Your task to perform on an android device: change your default location settings in chrome Image 0: 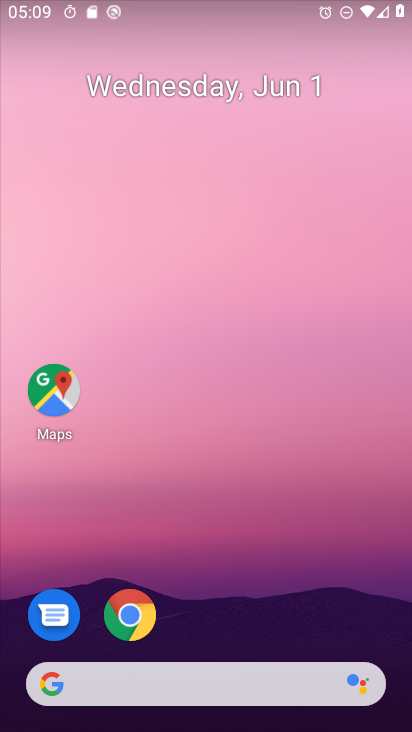
Step 0: drag from (302, 590) to (321, 78)
Your task to perform on an android device: change your default location settings in chrome Image 1: 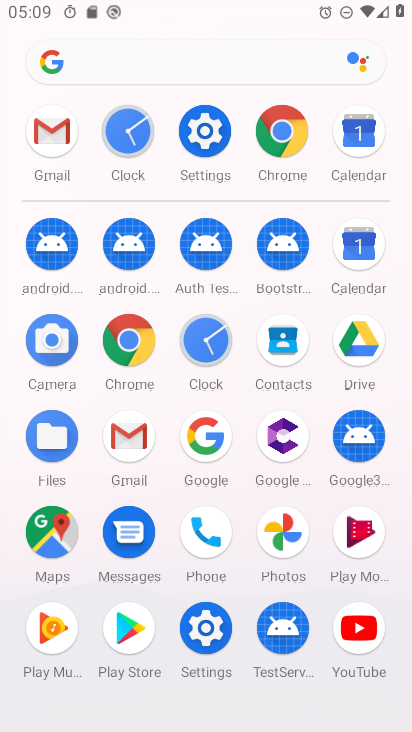
Step 1: click (128, 346)
Your task to perform on an android device: change your default location settings in chrome Image 2: 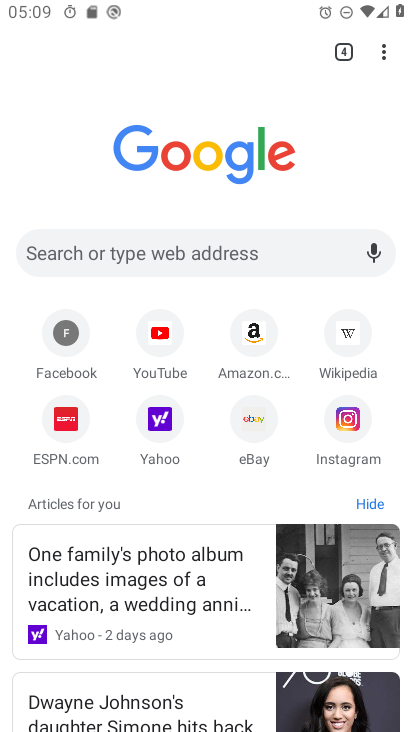
Step 2: drag from (382, 49) to (239, 444)
Your task to perform on an android device: change your default location settings in chrome Image 3: 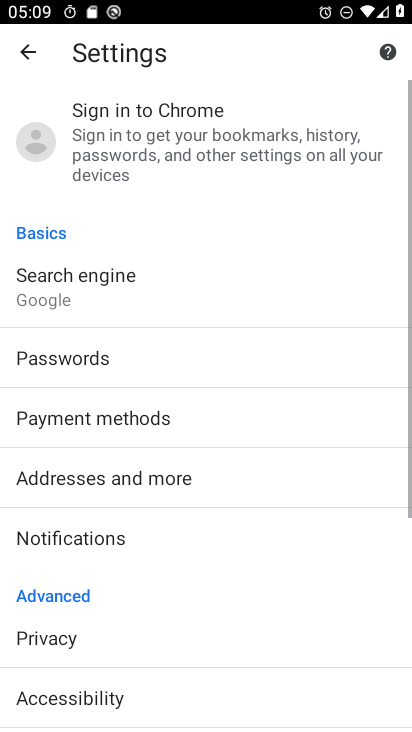
Step 3: drag from (143, 676) to (196, 167)
Your task to perform on an android device: change your default location settings in chrome Image 4: 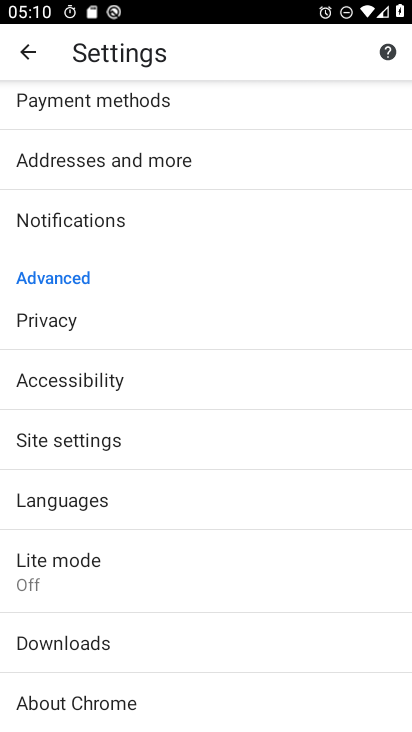
Step 4: click (108, 453)
Your task to perform on an android device: change your default location settings in chrome Image 5: 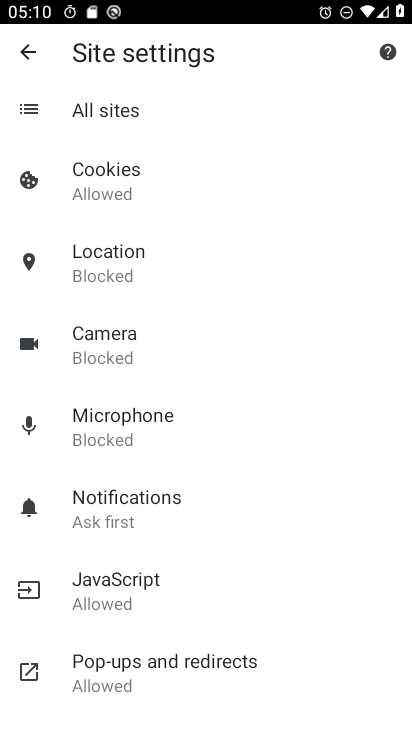
Step 5: click (147, 266)
Your task to perform on an android device: change your default location settings in chrome Image 6: 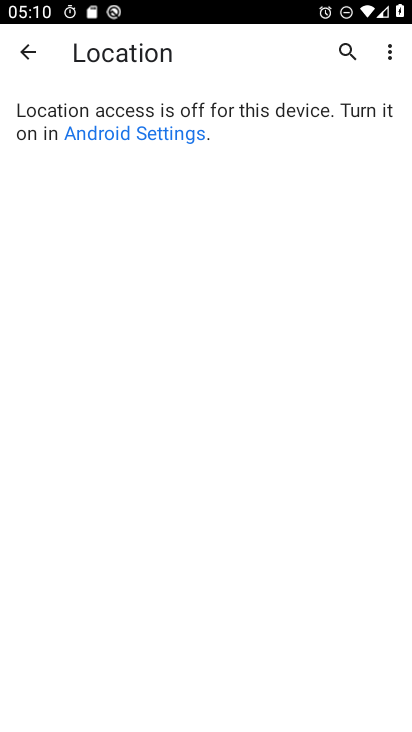
Step 6: task complete